Your task to perform on an android device: Open display settings Image 0: 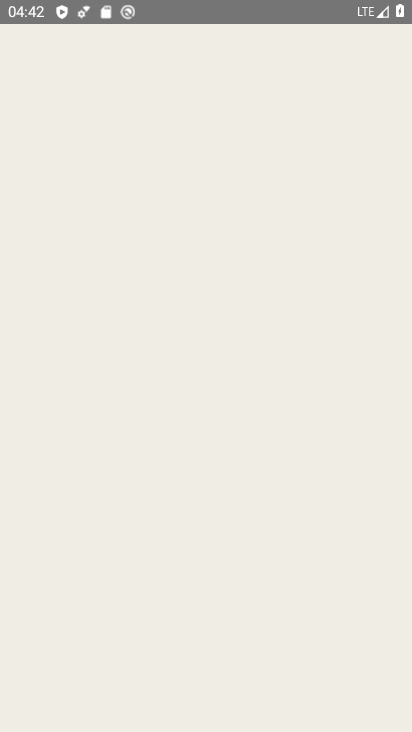
Step 0: press back button
Your task to perform on an android device: Open display settings Image 1: 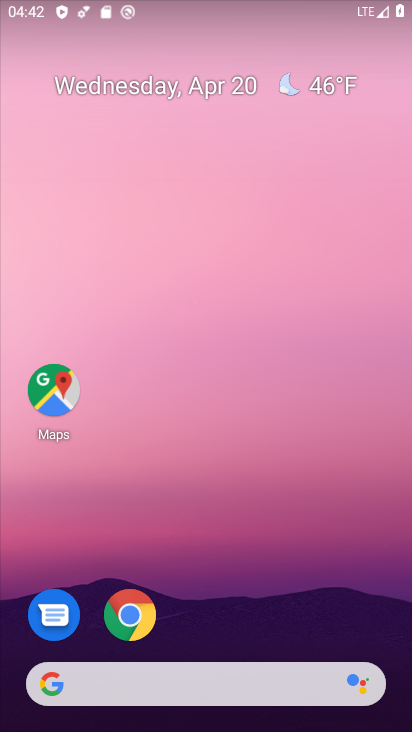
Step 1: drag from (221, 585) to (291, 82)
Your task to perform on an android device: Open display settings Image 2: 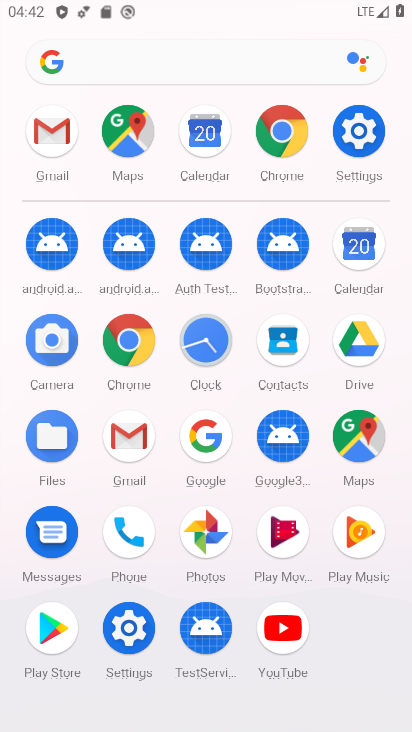
Step 2: click (360, 135)
Your task to perform on an android device: Open display settings Image 3: 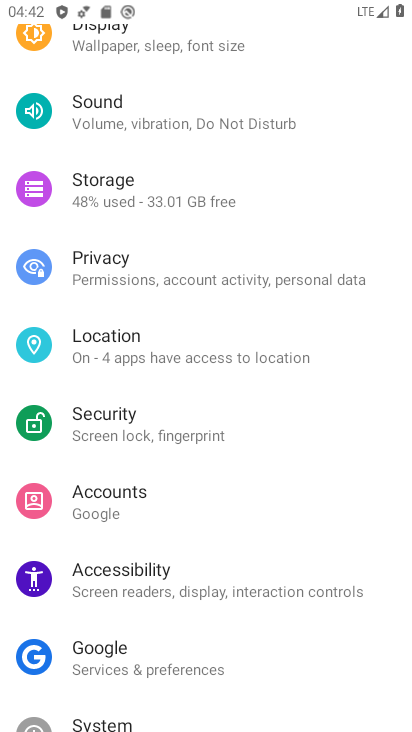
Step 3: click (124, 48)
Your task to perform on an android device: Open display settings Image 4: 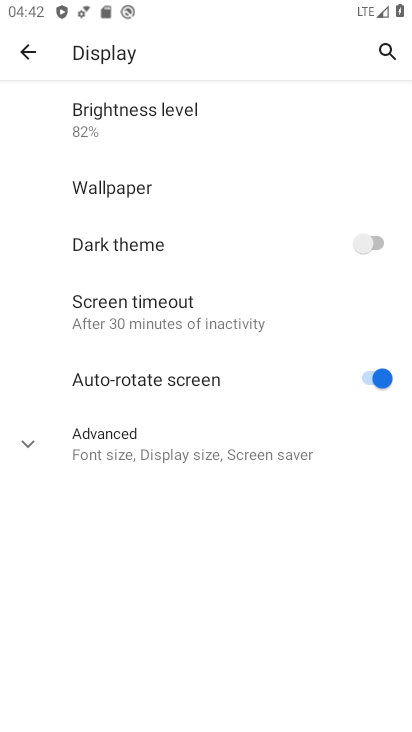
Step 4: task complete